Your task to perform on an android device: Go to notification settings Image 0: 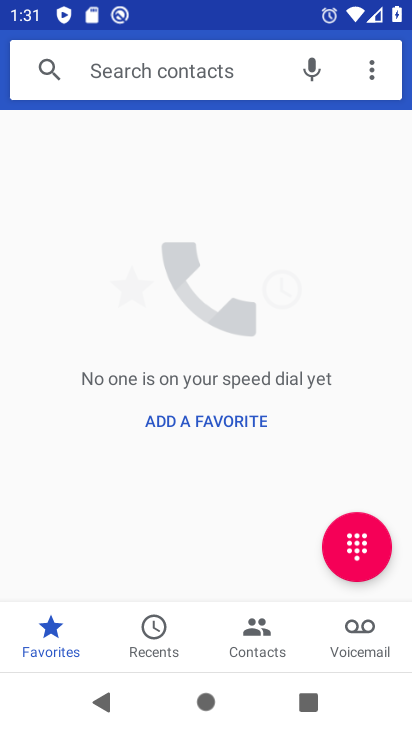
Step 0: press home button
Your task to perform on an android device: Go to notification settings Image 1: 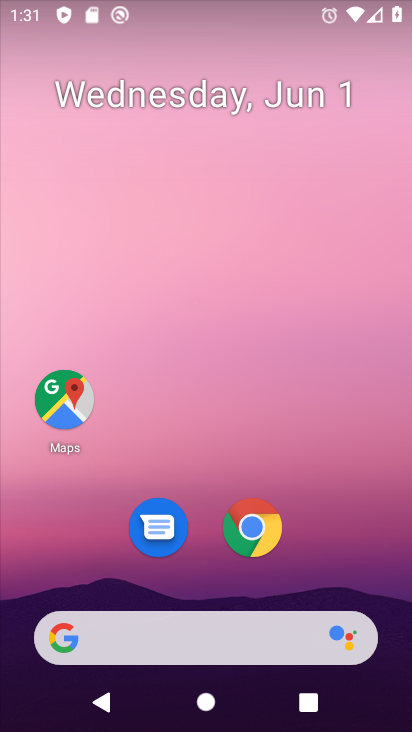
Step 1: drag from (361, 563) to (264, 262)
Your task to perform on an android device: Go to notification settings Image 2: 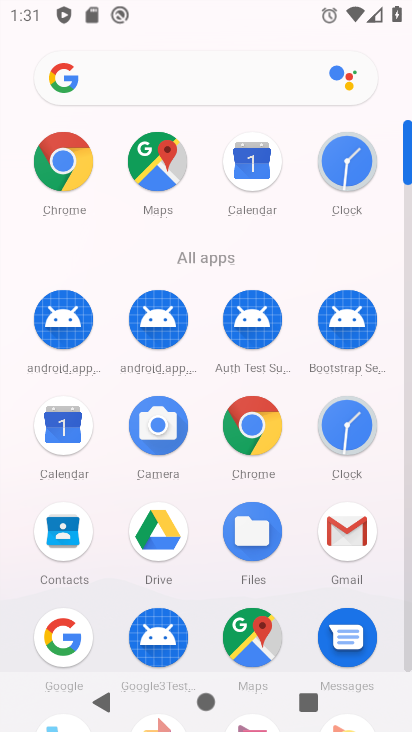
Step 2: drag from (393, 654) to (374, 459)
Your task to perform on an android device: Go to notification settings Image 3: 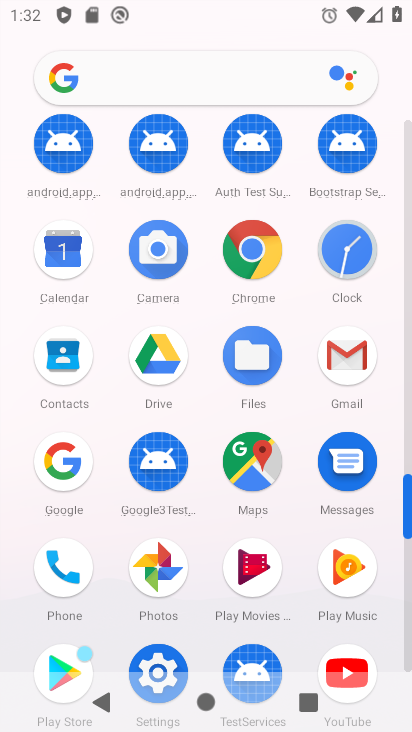
Step 3: click (168, 654)
Your task to perform on an android device: Go to notification settings Image 4: 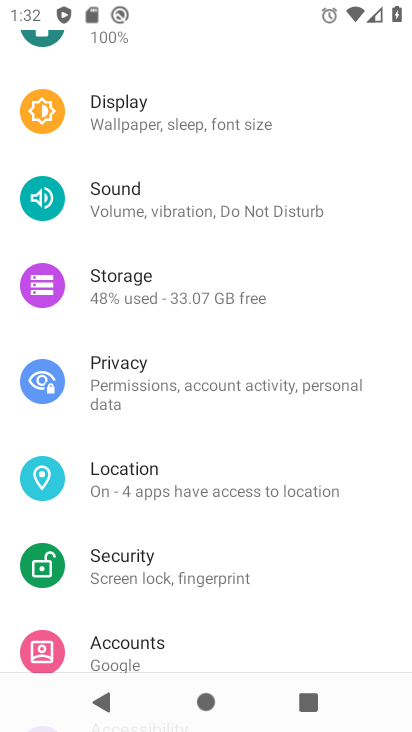
Step 4: drag from (189, 165) to (201, 442)
Your task to perform on an android device: Go to notification settings Image 5: 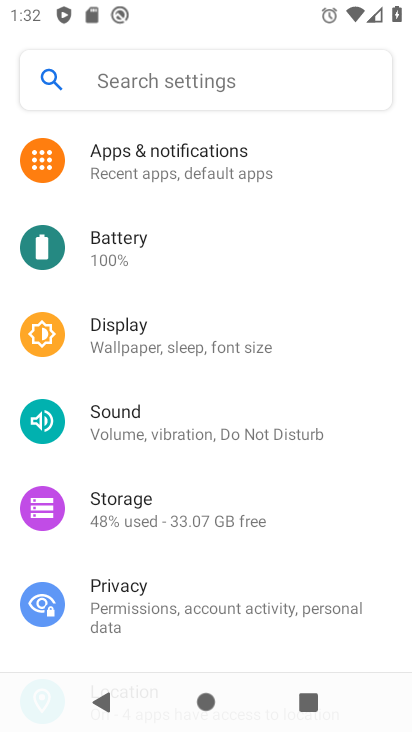
Step 5: click (194, 168)
Your task to perform on an android device: Go to notification settings Image 6: 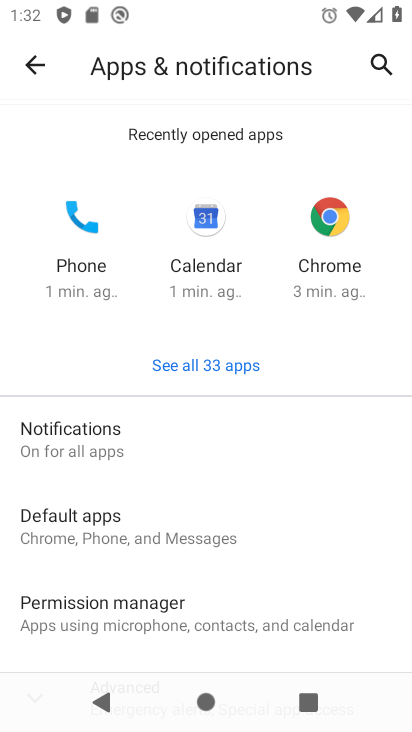
Step 6: click (208, 446)
Your task to perform on an android device: Go to notification settings Image 7: 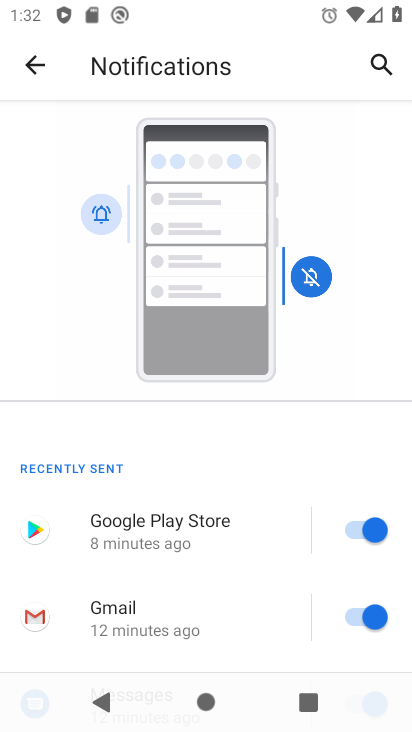
Step 7: task complete